Your task to perform on an android device: Search for flights from Buenos aires to Seoul Image 0: 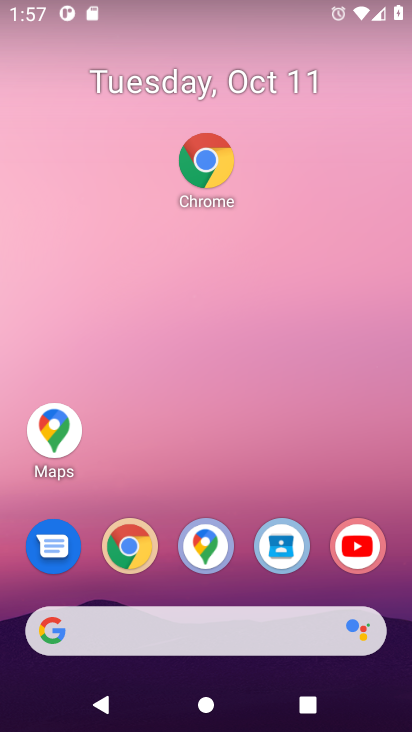
Step 0: click (128, 541)
Your task to perform on an android device: Search for flights from Buenos aires to Seoul Image 1: 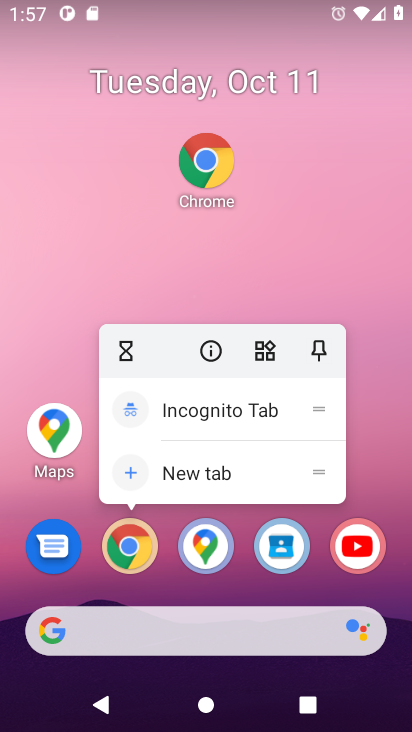
Step 1: click (137, 557)
Your task to perform on an android device: Search for flights from Buenos aires to Seoul Image 2: 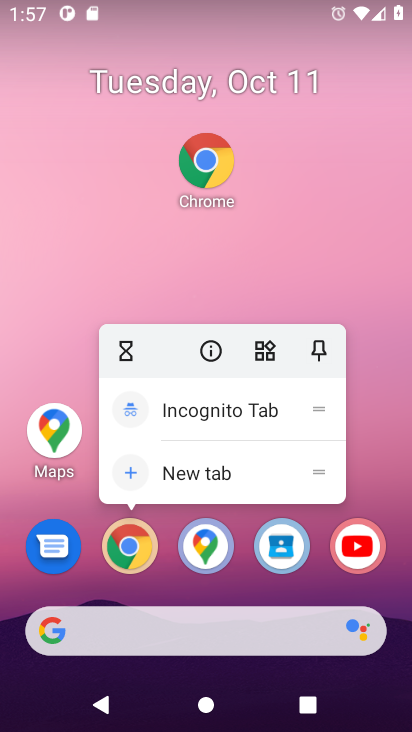
Step 2: click (135, 559)
Your task to perform on an android device: Search for flights from Buenos aires to Seoul Image 3: 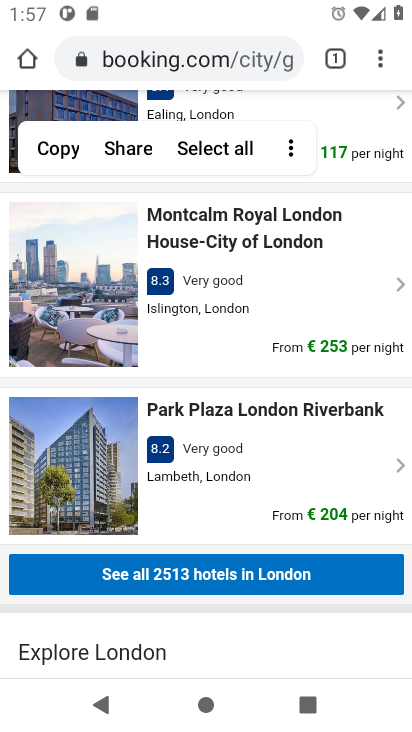
Step 3: click (184, 55)
Your task to perform on an android device: Search for flights from Buenos aires to Seoul Image 4: 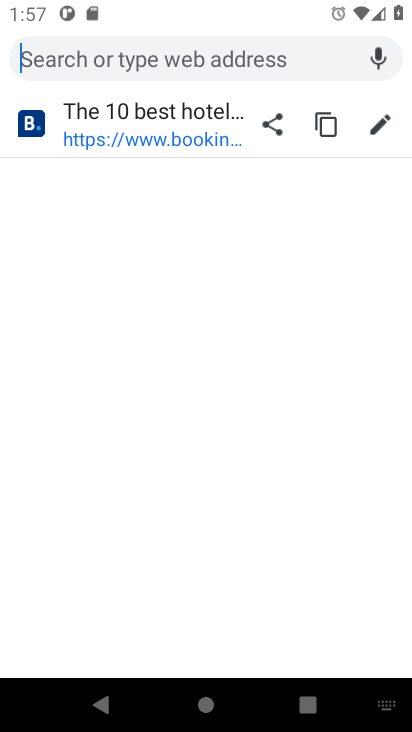
Step 4: type "flights from Buenos aires to Seoul"
Your task to perform on an android device: Search for flights from Buenos aires to Seoul Image 5: 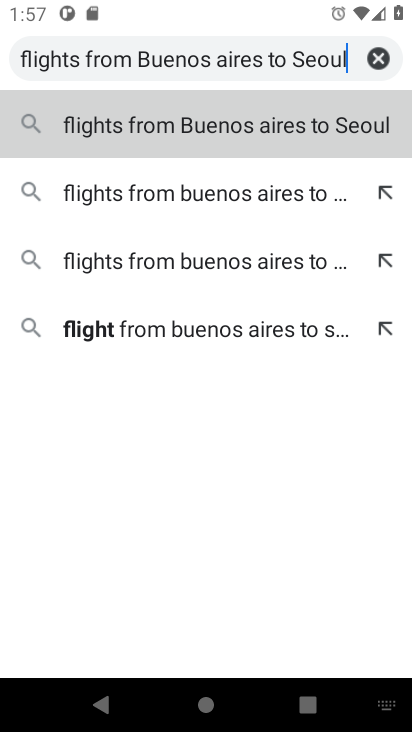
Step 5: type ""
Your task to perform on an android device: Search for flights from Buenos aires to Seoul Image 6: 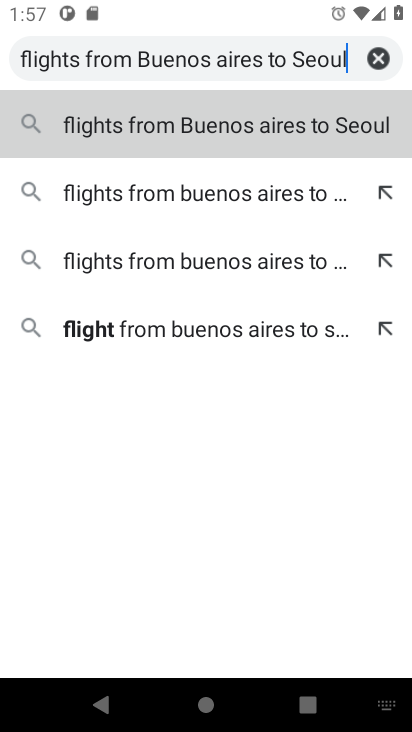
Step 6: press enter
Your task to perform on an android device: Search for flights from Buenos aires to Seoul Image 7: 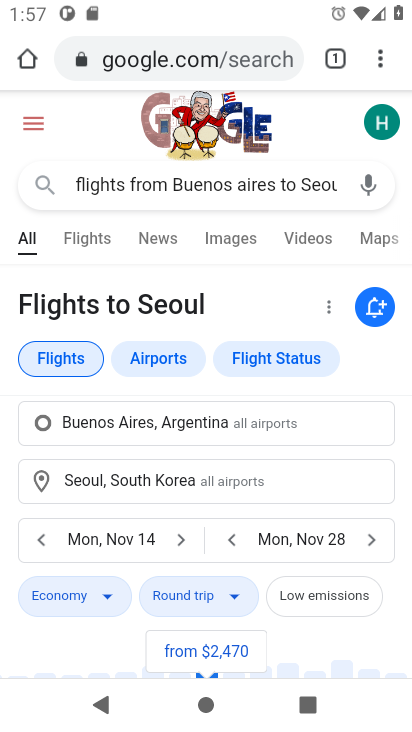
Step 7: drag from (301, 603) to (280, 266)
Your task to perform on an android device: Search for flights from Buenos aires to Seoul Image 8: 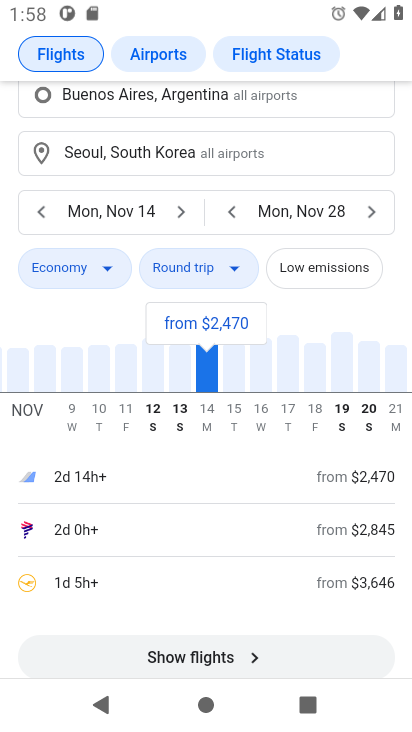
Step 8: click (236, 660)
Your task to perform on an android device: Search for flights from Buenos aires to Seoul Image 9: 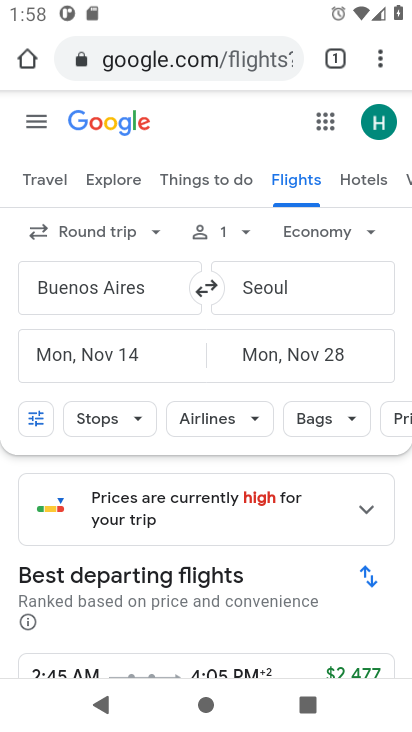
Step 9: task complete